Your task to perform on an android device: Open network settings Image 0: 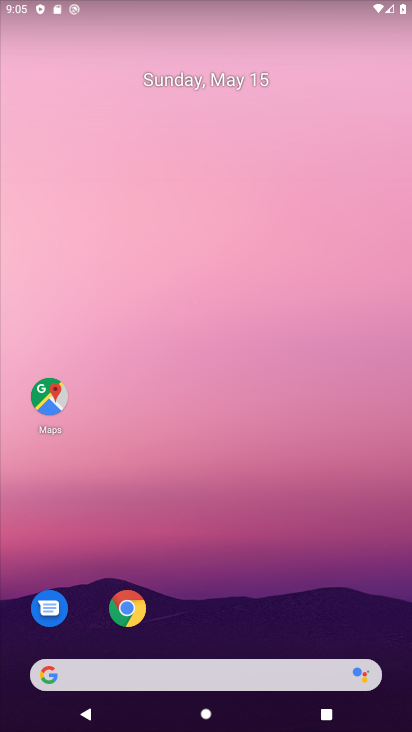
Step 0: drag from (320, 551) to (183, 13)
Your task to perform on an android device: Open network settings Image 1: 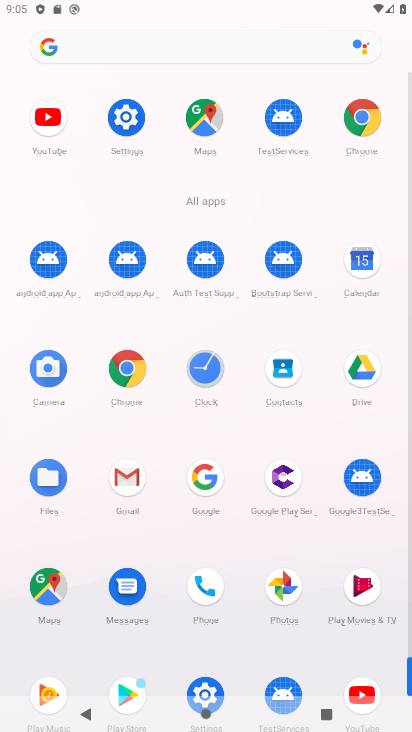
Step 1: click (146, 123)
Your task to perform on an android device: Open network settings Image 2: 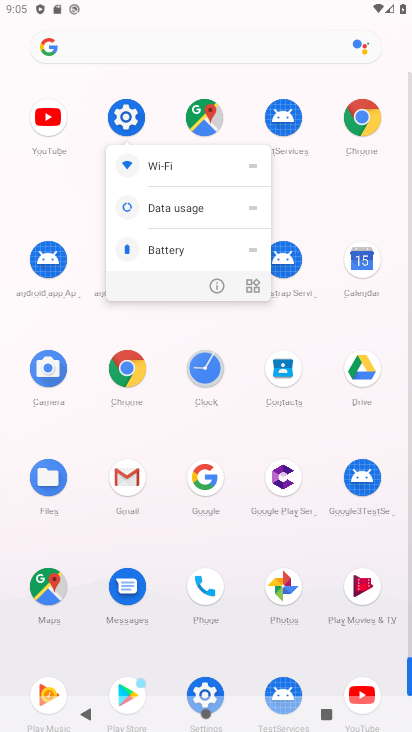
Step 2: click (131, 127)
Your task to perform on an android device: Open network settings Image 3: 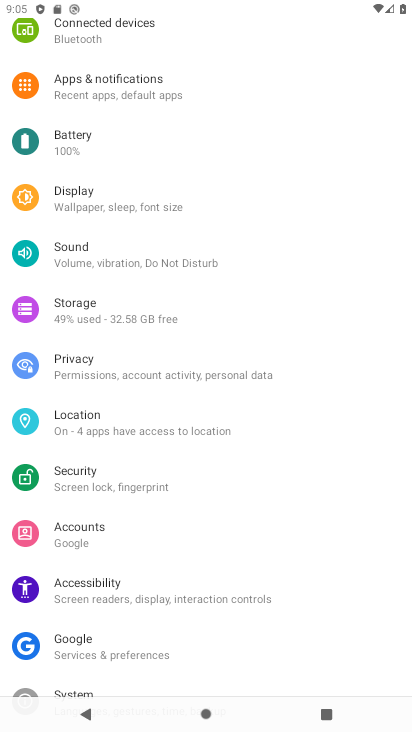
Step 3: drag from (131, 127) to (158, 569)
Your task to perform on an android device: Open network settings Image 4: 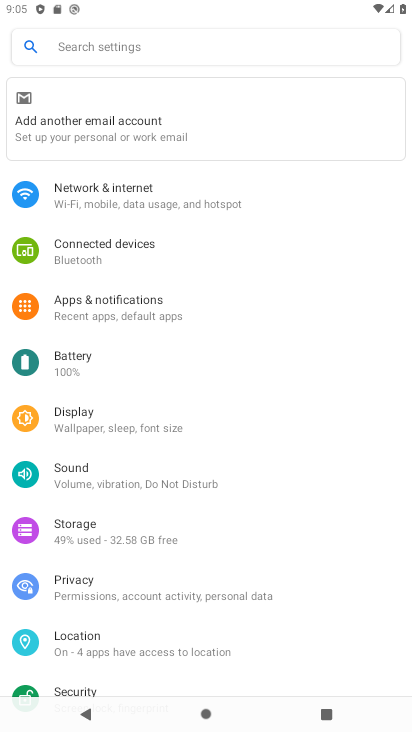
Step 4: click (85, 179)
Your task to perform on an android device: Open network settings Image 5: 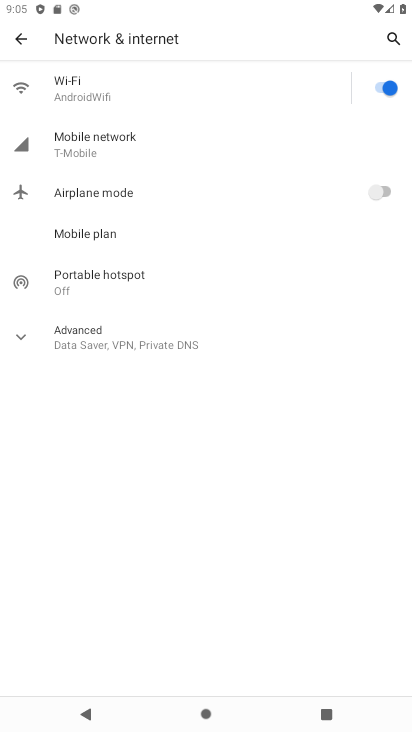
Step 5: click (74, 157)
Your task to perform on an android device: Open network settings Image 6: 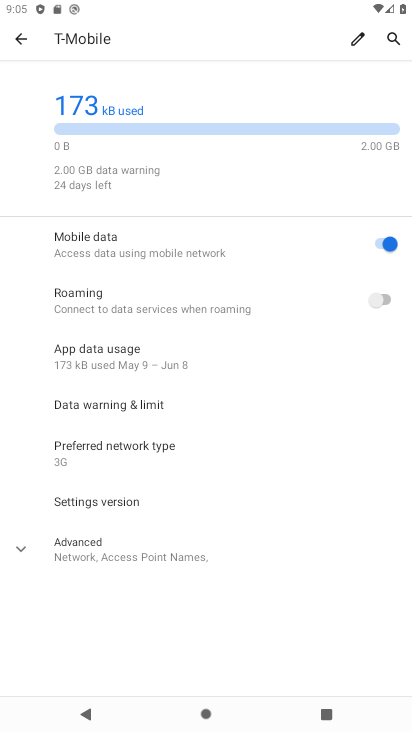
Step 6: task complete